Your task to perform on an android device: open a bookmark in the chrome app Image 0: 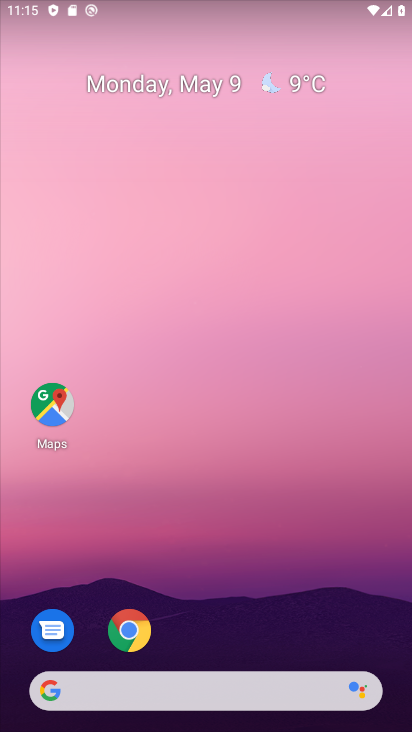
Step 0: click (128, 639)
Your task to perform on an android device: open a bookmark in the chrome app Image 1: 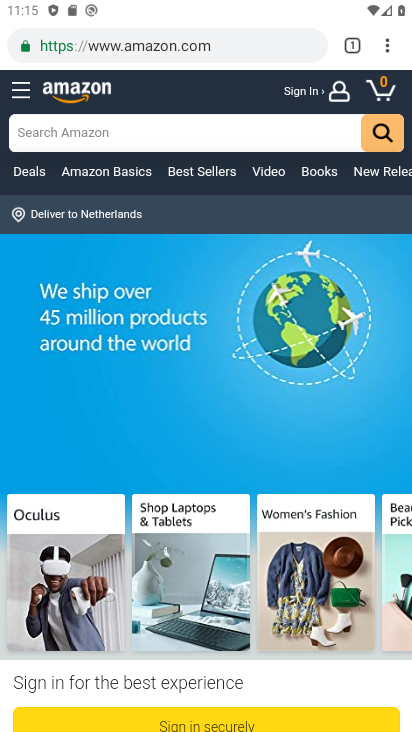
Step 1: click (385, 44)
Your task to perform on an android device: open a bookmark in the chrome app Image 2: 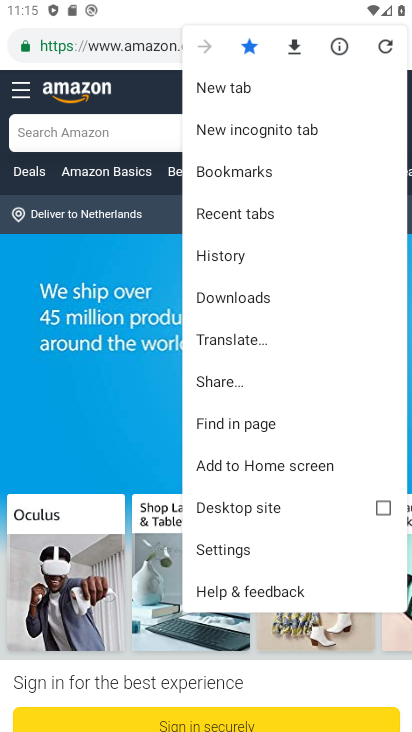
Step 2: click (255, 168)
Your task to perform on an android device: open a bookmark in the chrome app Image 3: 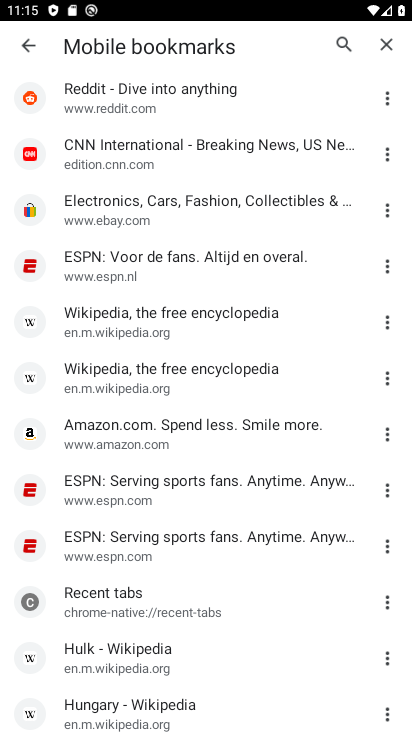
Step 3: task complete